Your task to perform on an android device: Open location settings Image 0: 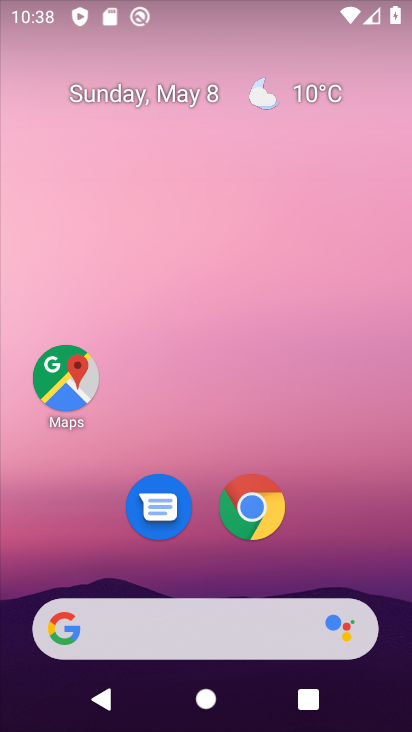
Step 0: drag from (304, 540) to (326, 9)
Your task to perform on an android device: Open location settings Image 1: 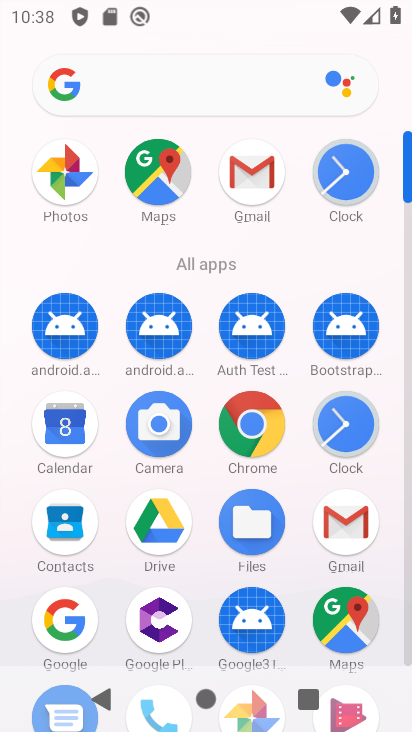
Step 1: drag from (193, 506) to (221, 103)
Your task to perform on an android device: Open location settings Image 2: 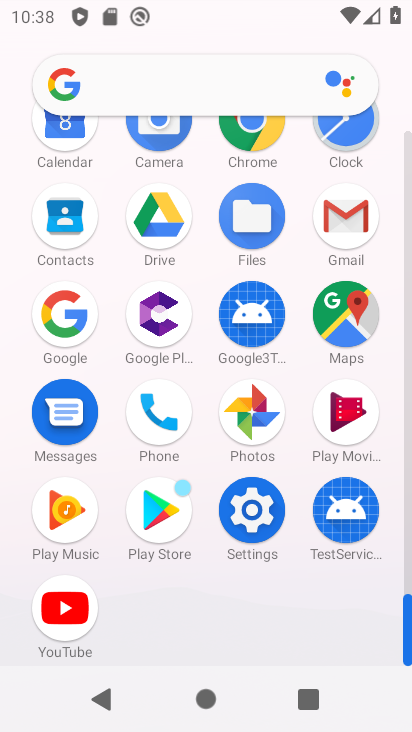
Step 2: click (245, 499)
Your task to perform on an android device: Open location settings Image 3: 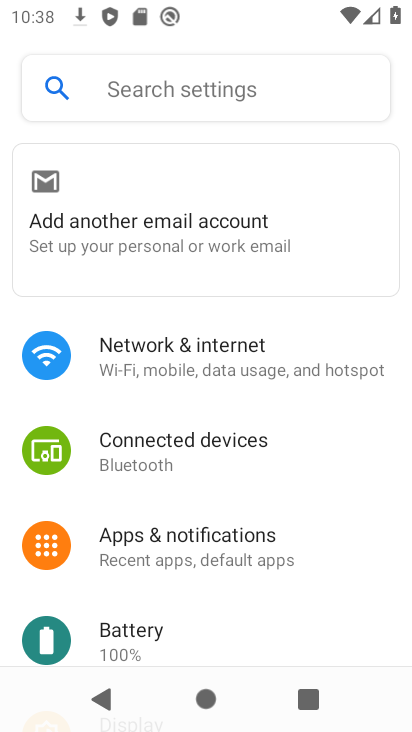
Step 3: drag from (218, 571) to (207, 440)
Your task to perform on an android device: Open location settings Image 4: 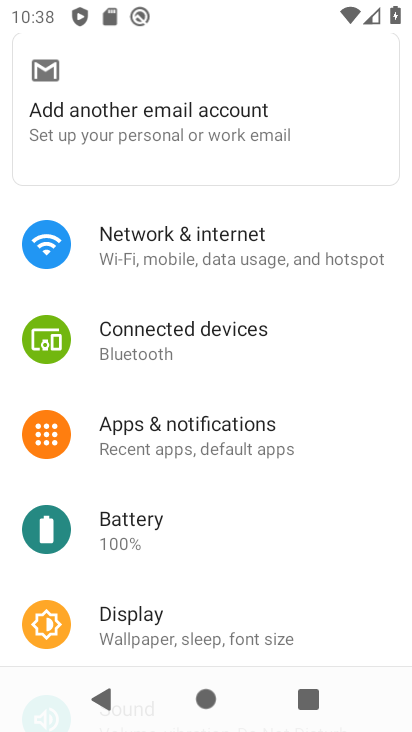
Step 4: drag from (197, 614) to (173, 513)
Your task to perform on an android device: Open location settings Image 5: 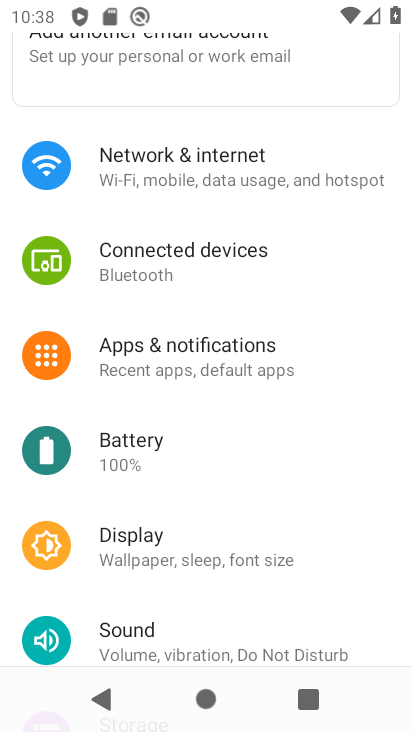
Step 5: drag from (161, 603) to (183, 430)
Your task to perform on an android device: Open location settings Image 6: 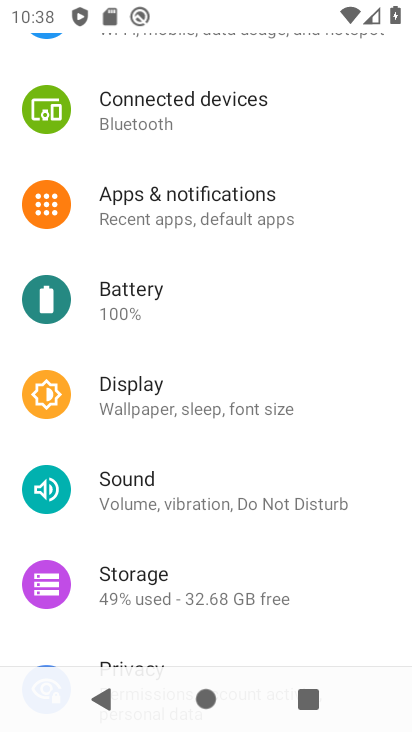
Step 6: drag from (191, 553) to (196, 397)
Your task to perform on an android device: Open location settings Image 7: 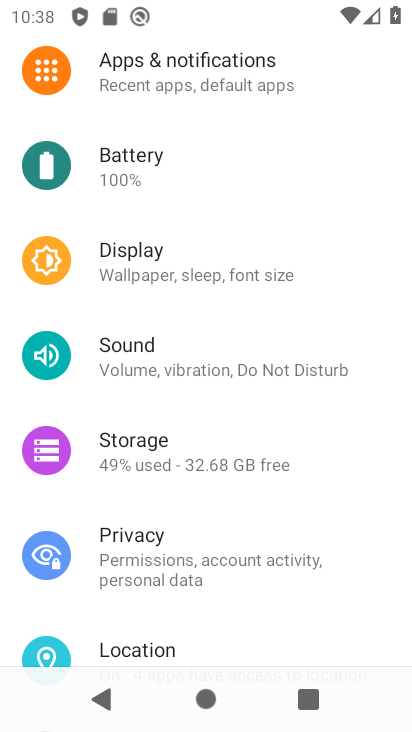
Step 7: drag from (208, 577) to (222, 391)
Your task to perform on an android device: Open location settings Image 8: 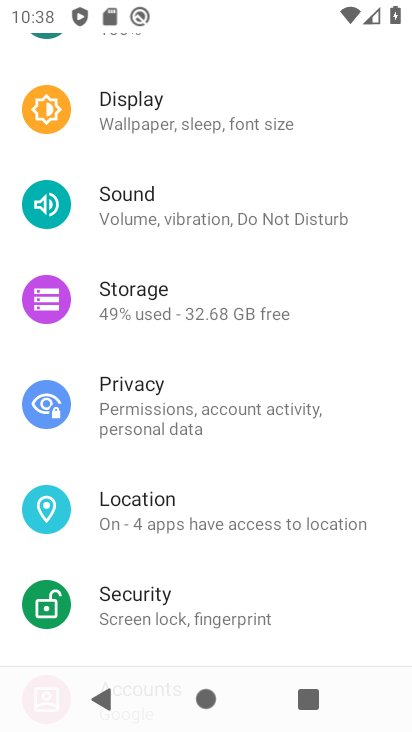
Step 8: click (209, 510)
Your task to perform on an android device: Open location settings Image 9: 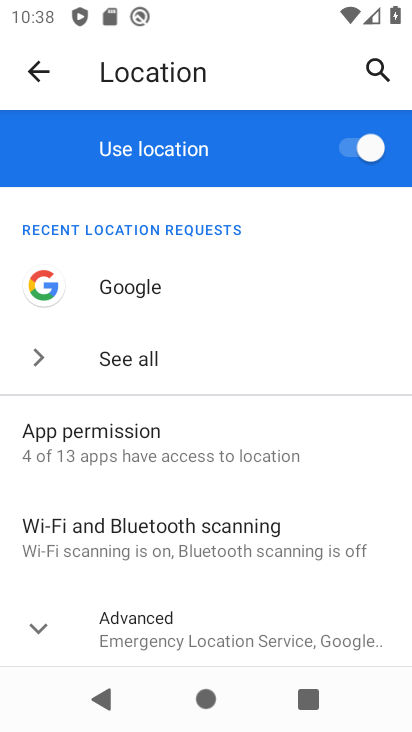
Step 9: task complete